Your task to perform on an android device: Open Youtube and go to the subscriptions tab Image 0: 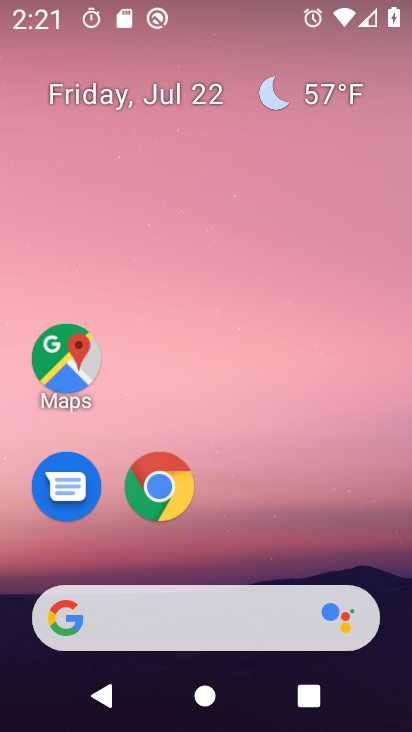
Step 0: press home button
Your task to perform on an android device: Open Youtube and go to the subscriptions tab Image 1: 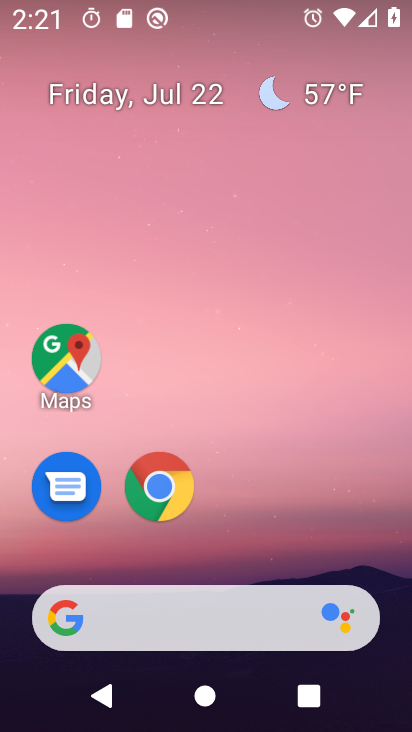
Step 1: drag from (320, 557) to (364, 133)
Your task to perform on an android device: Open Youtube and go to the subscriptions tab Image 2: 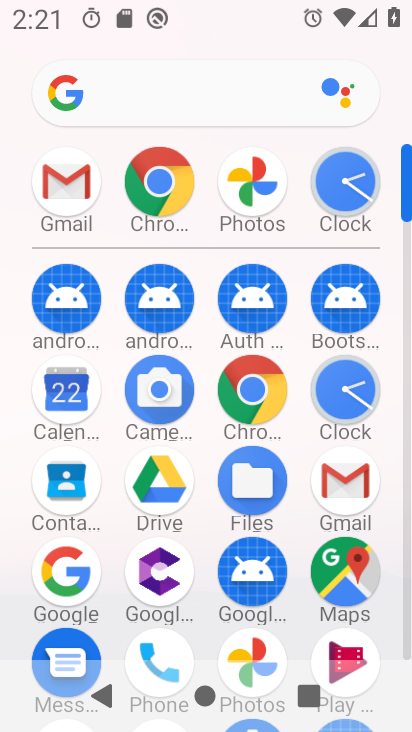
Step 2: drag from (391, 515) to (390, 209)
Your task to perform on an android device: Open Youtube and go to the subscriptions tab Image 3: 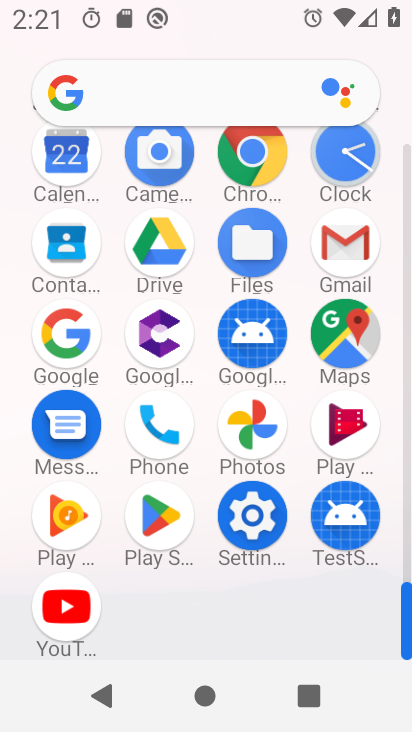
Step 3: click (70, 624)
Your task to perform on an android device: Open Youtube and go to the subscriptions tab Image 4: 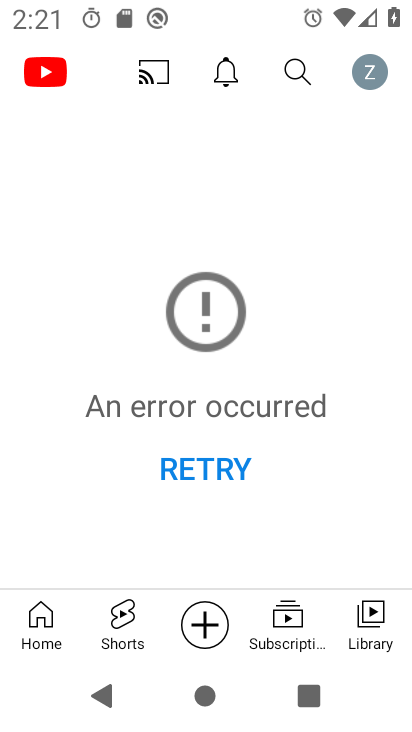
Step 4: click (283, 624)
Your task to perform on an android device: Open Youtube and go to the subscriptions tab Image 5: 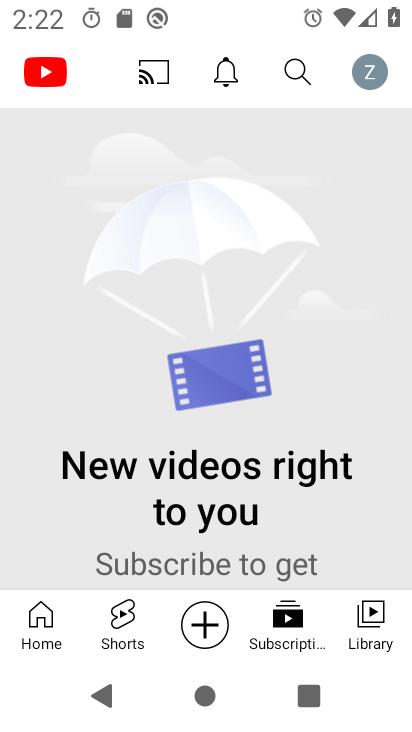
Step 5: task complete